Your task to perform on an android device: Find coffee shops on Maps Image 0: 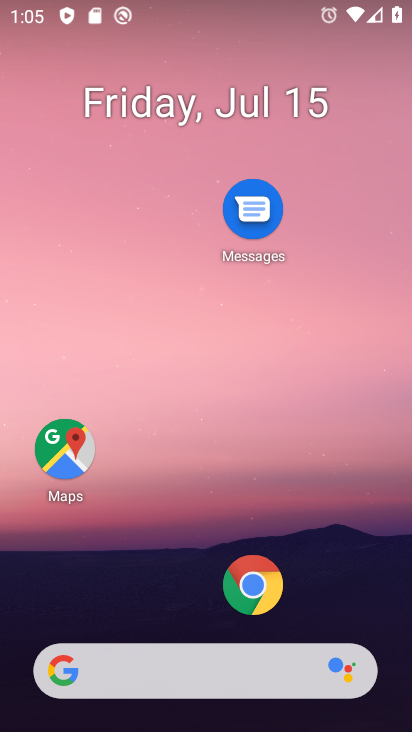
Step 0: press home button
Your task to perform on an android device: Find coffee shops on Maps Image 1: 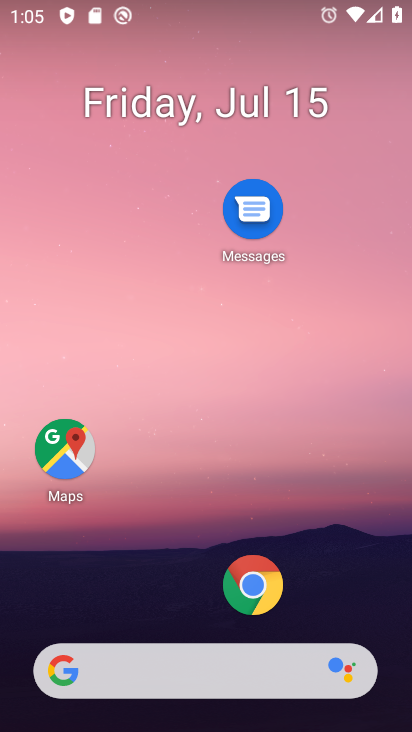
Step 1: click (68, 467)
Your task to perform on an android device: Find coffee shops on Maps Image 2: 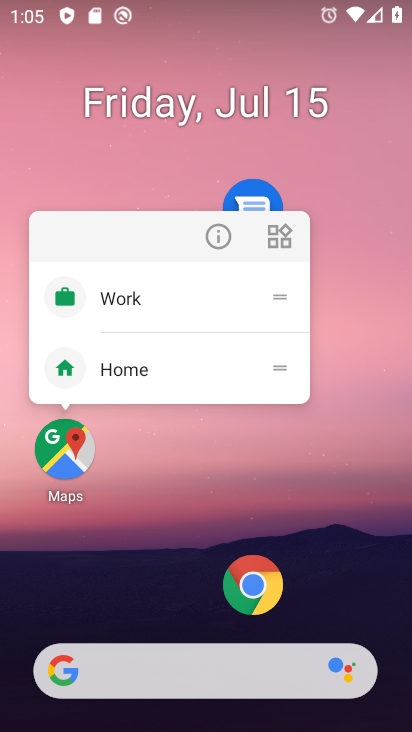
Step 2: click (60, 456)
Your task to perform on an android device: Find coffee shops on Maps Image 3: 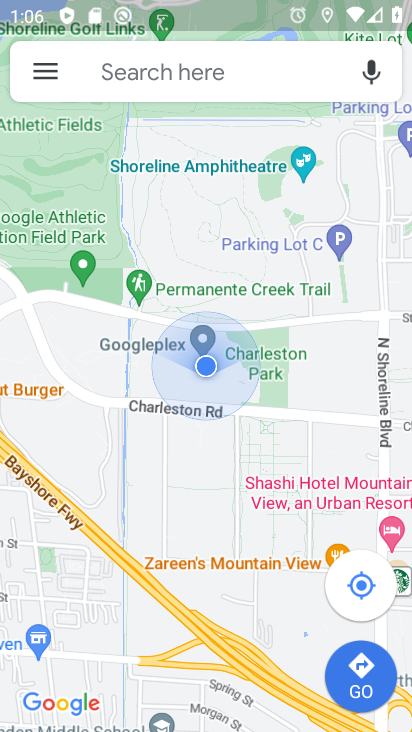
Step 3: click (132, 69)
Your task to perform on an android device: Find coffee shops on Maps Image 4: 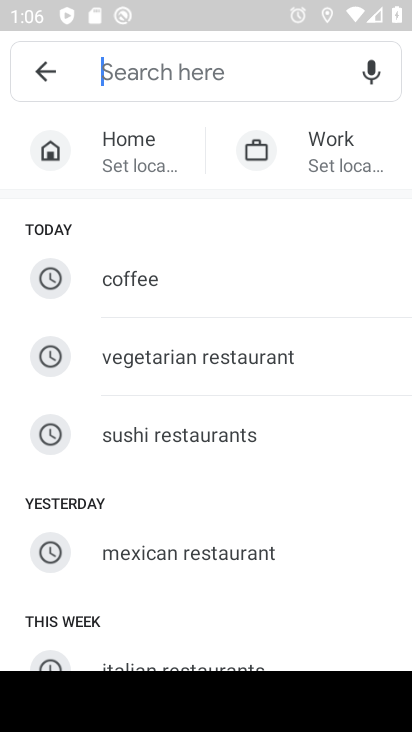
Step 4: click (144, 275)
Your task to perform on an android device: Find coffee shops on Maps Image 5: 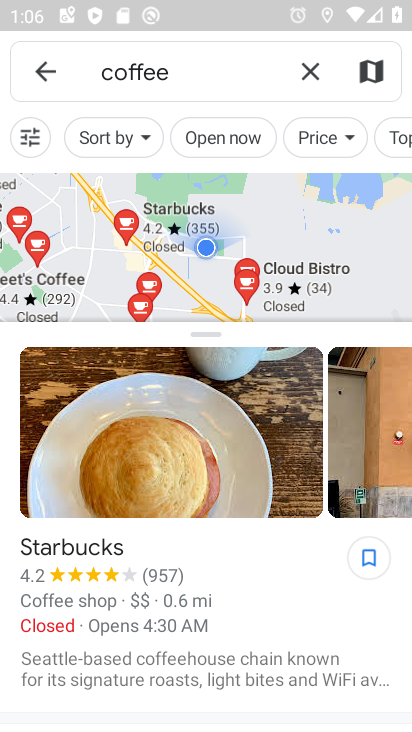
Step 5: task complete